Your task to perform on an android device: open app "Booking.com: Hotels and more" Image 0: 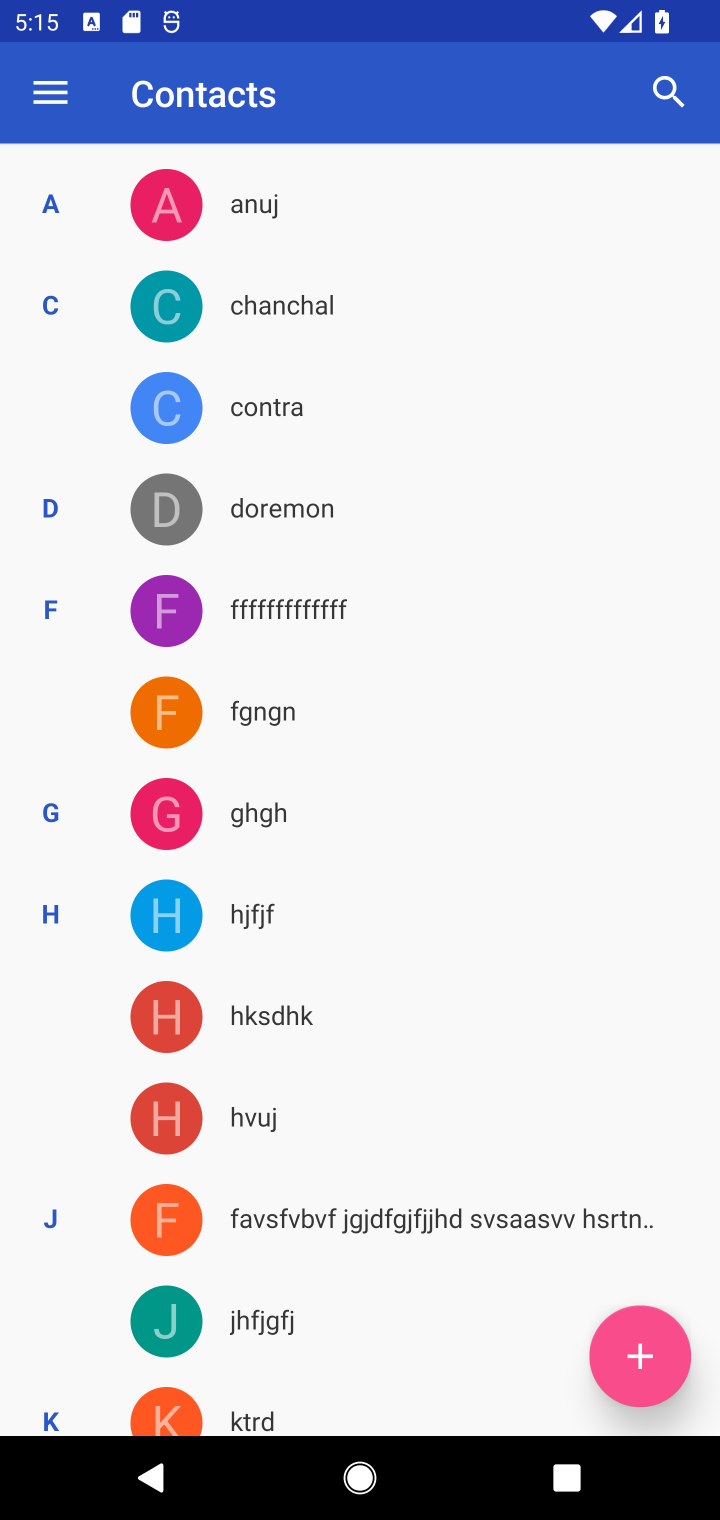
Step 0: press home button
Your task to perform on an android device: open app "Booking.com: Hotels and more" Image 1: 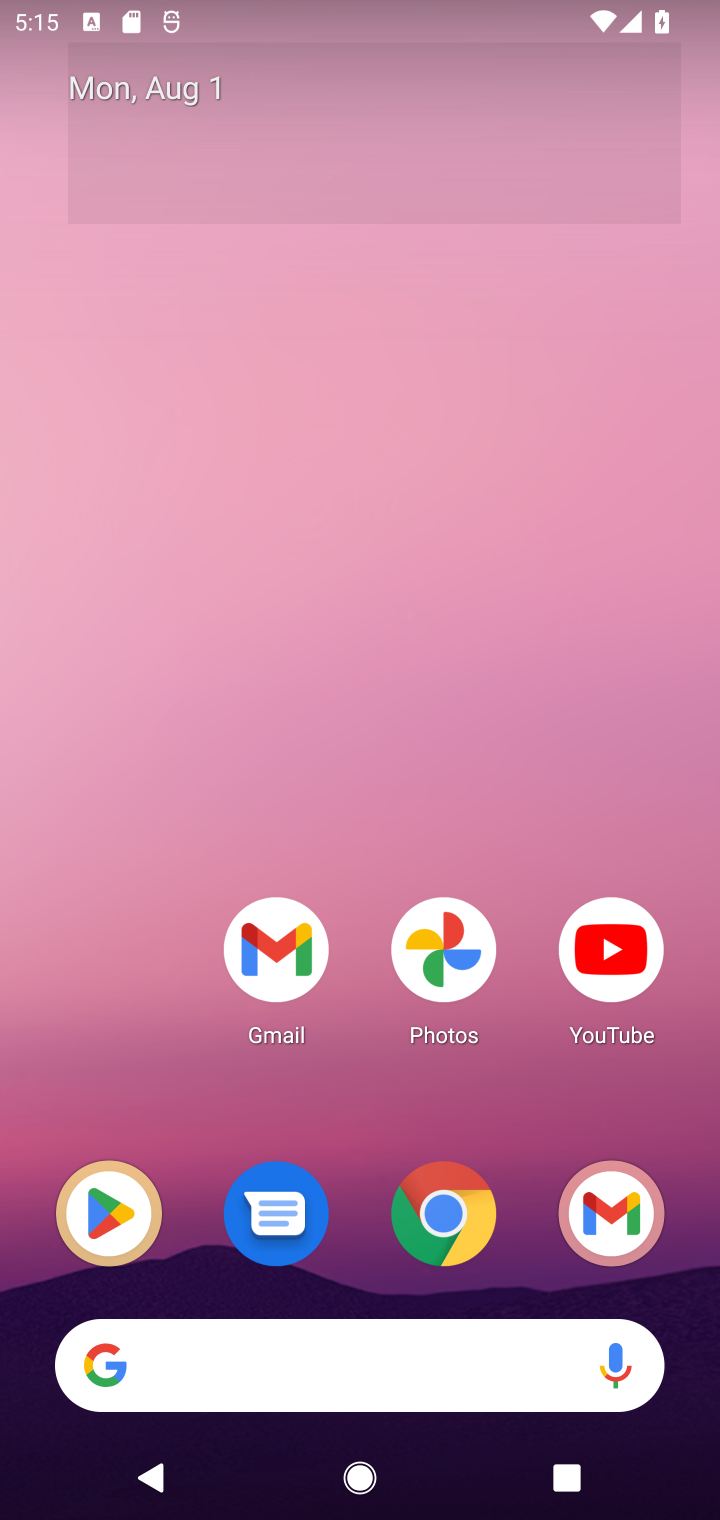
Step 1: drag from (503, 1117) to (515, 188)
Your task to perform on an android device: open app "Booking.com: Hotels and more" Image 2: 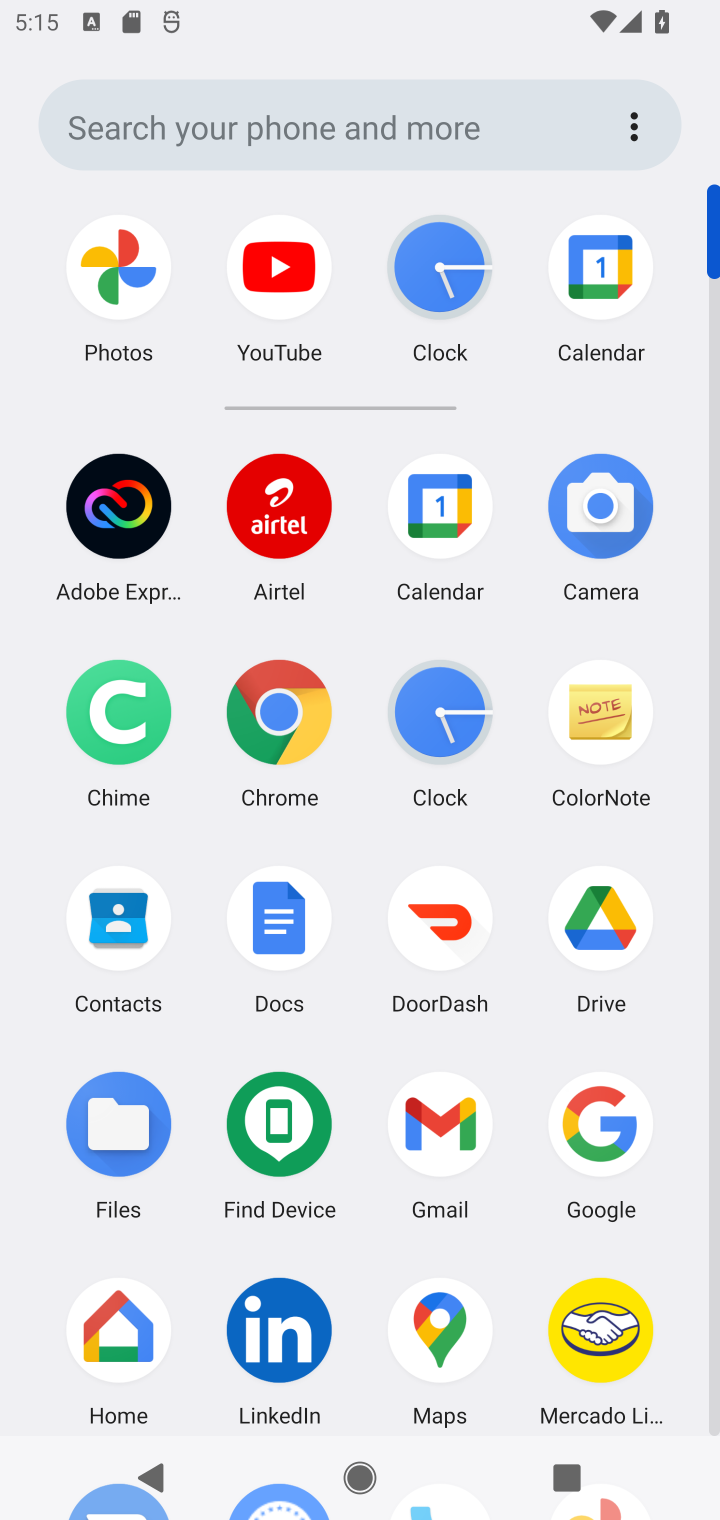
Step 2: drag from (520, 1230) to (453, 474)
Your task to perform on an android device: open app "Booking.com: Hotels and more" Image 3: 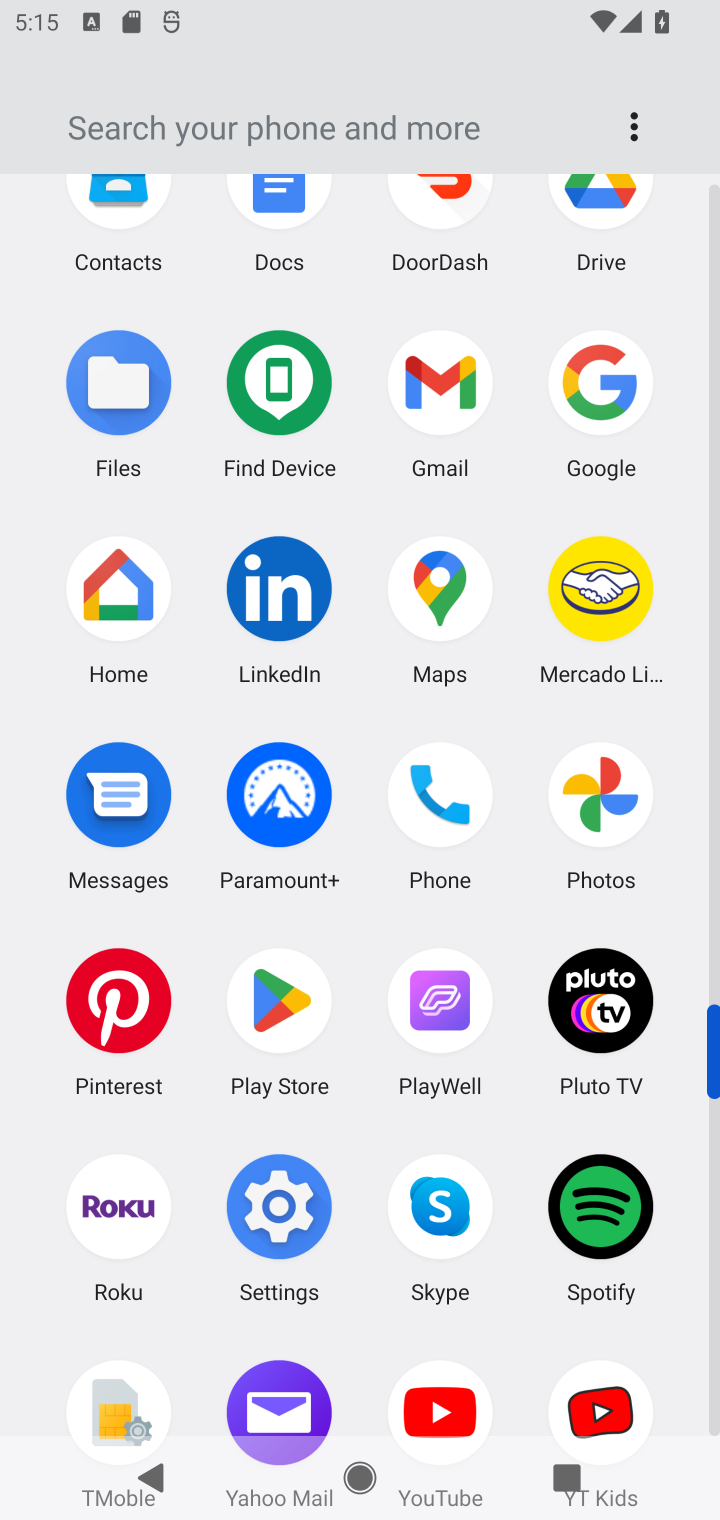
Step 3: click (299, 991)
Your task to perform on an android device: open app "Booking.com: Hotels and more" Image 4: 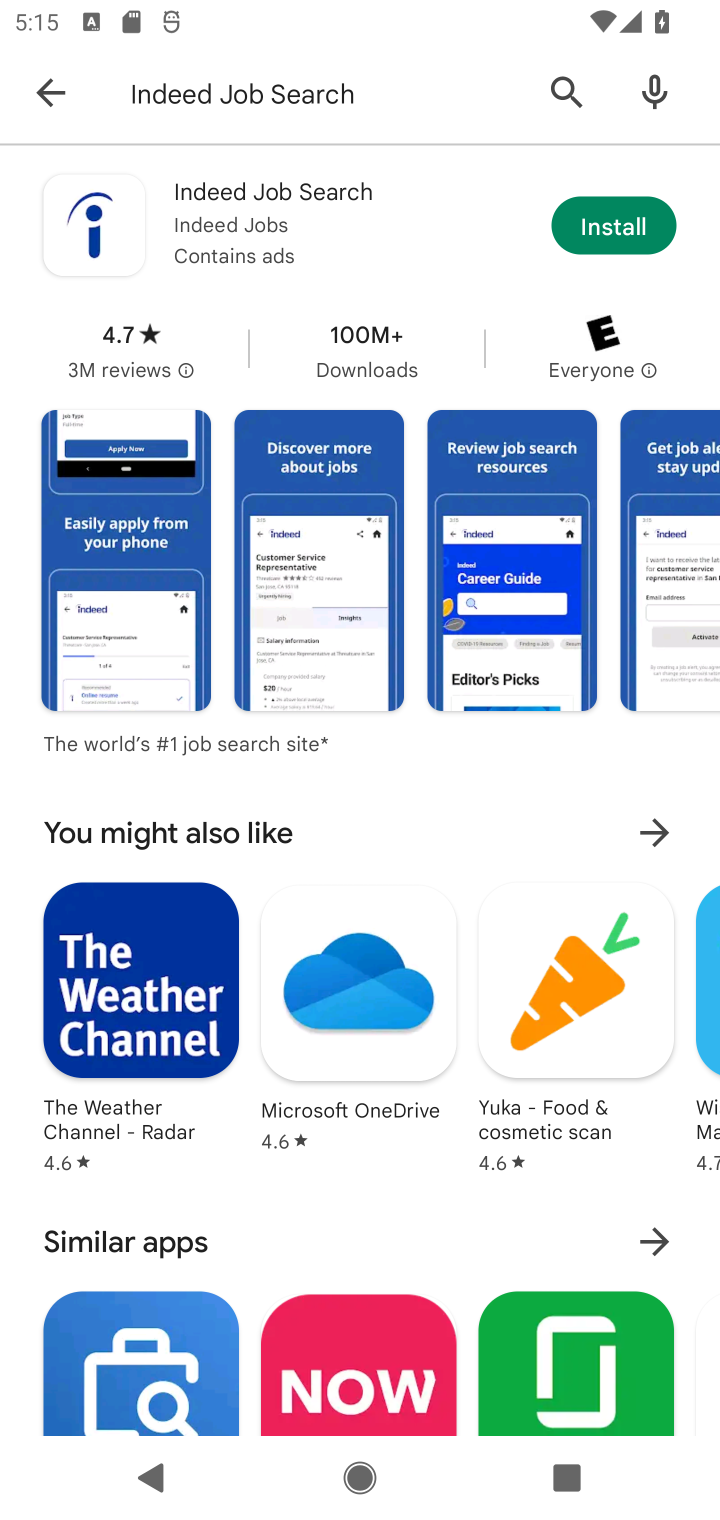
Step 4: click (429, 99)
Your task to perform on an android device: open app "Booking.com: Hotels and more" Image 5: 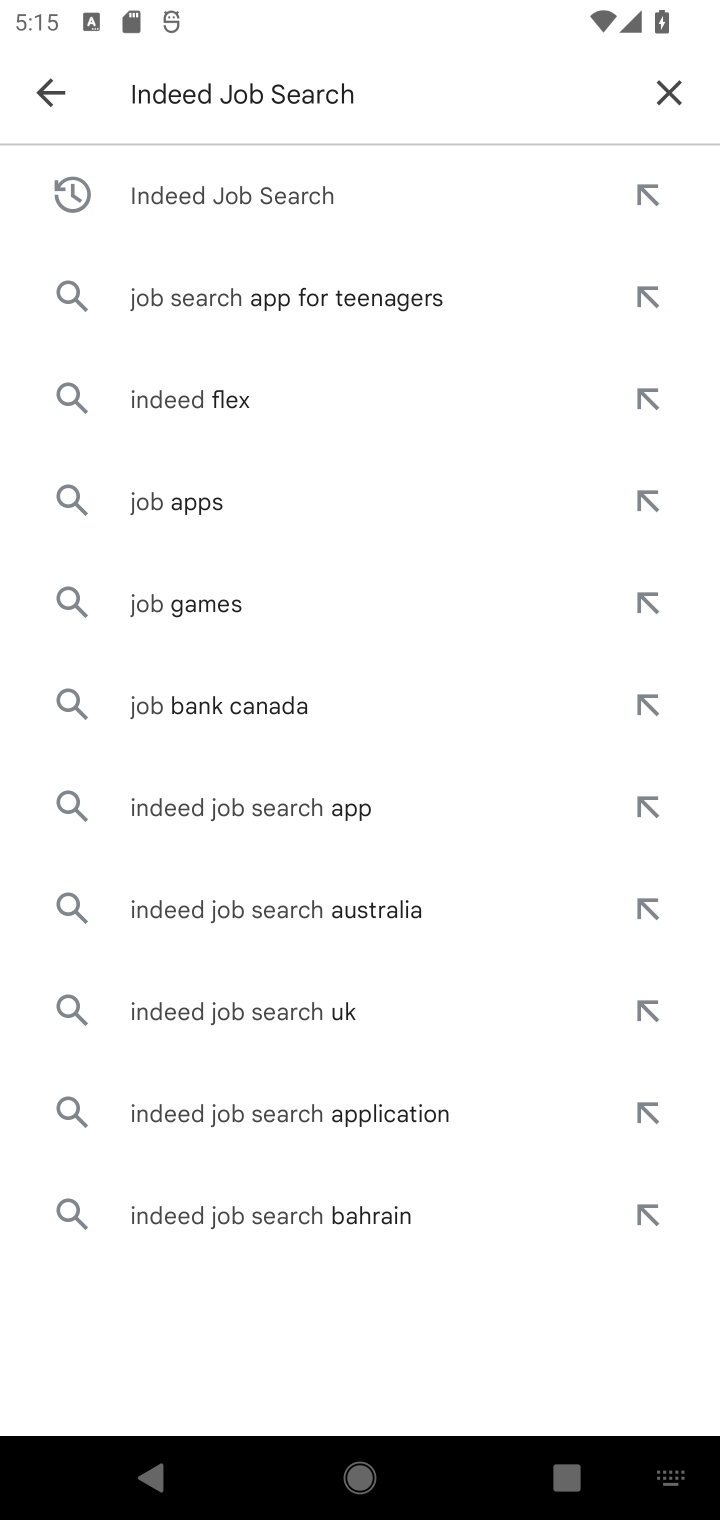
Step 5: click (658, 81)
Your task to perform on an android device: open app "Booking.com: Hotels and more" Image 6: 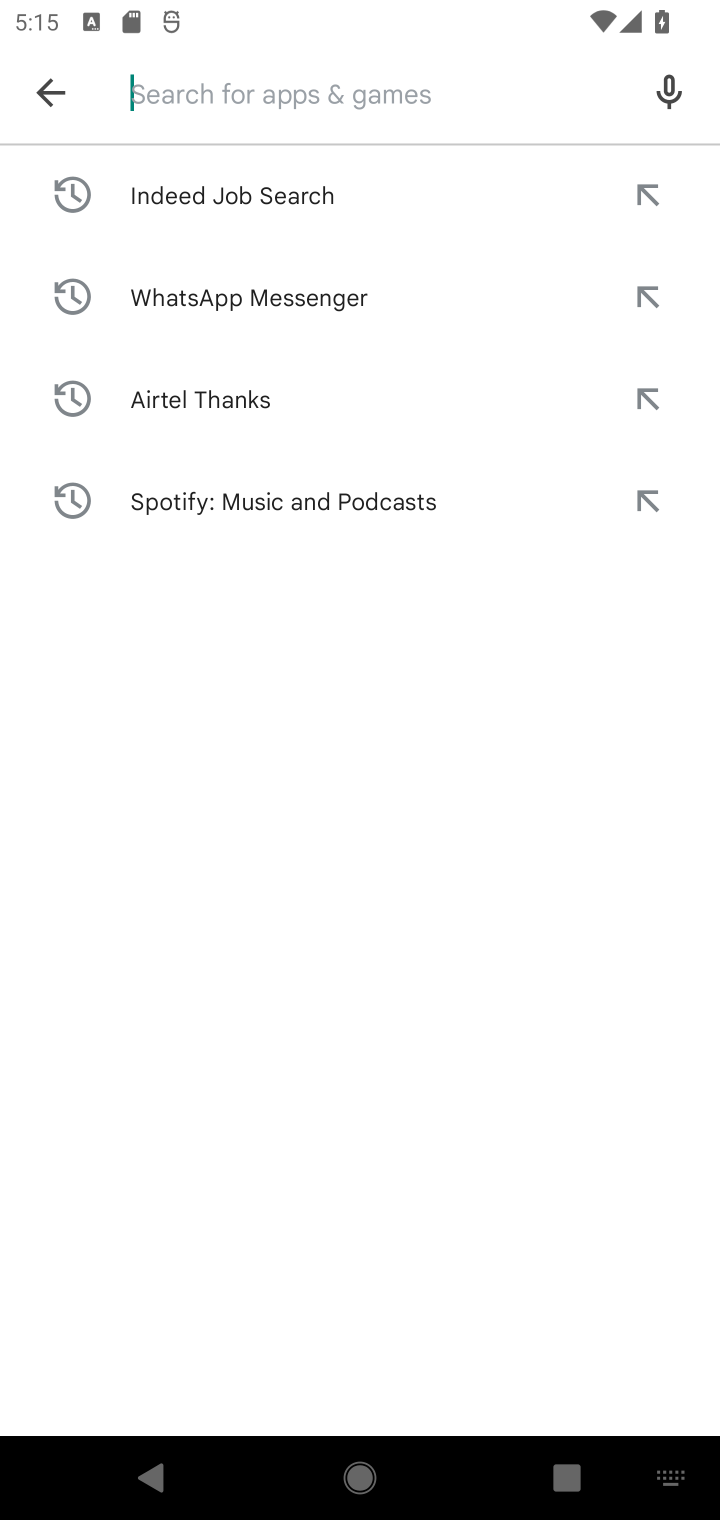
Step 6: type "Booking.com: Hotels and more"
Your task to perform on an android device: open app "Booking.com: Hotels and more" Image 7: 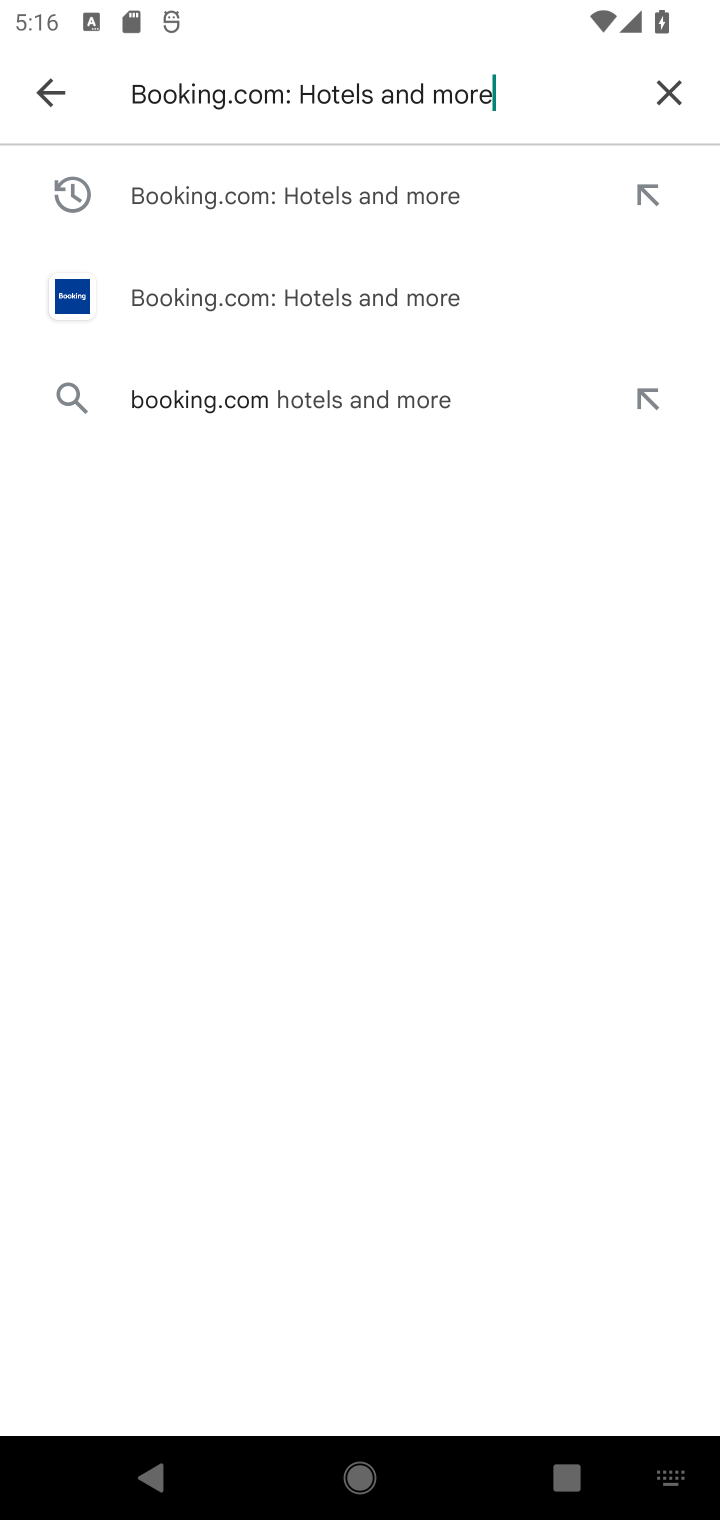
Step 7: press enter
Your task to perform on an android device: open app "Booking.com: Hotels and more" Image 8: 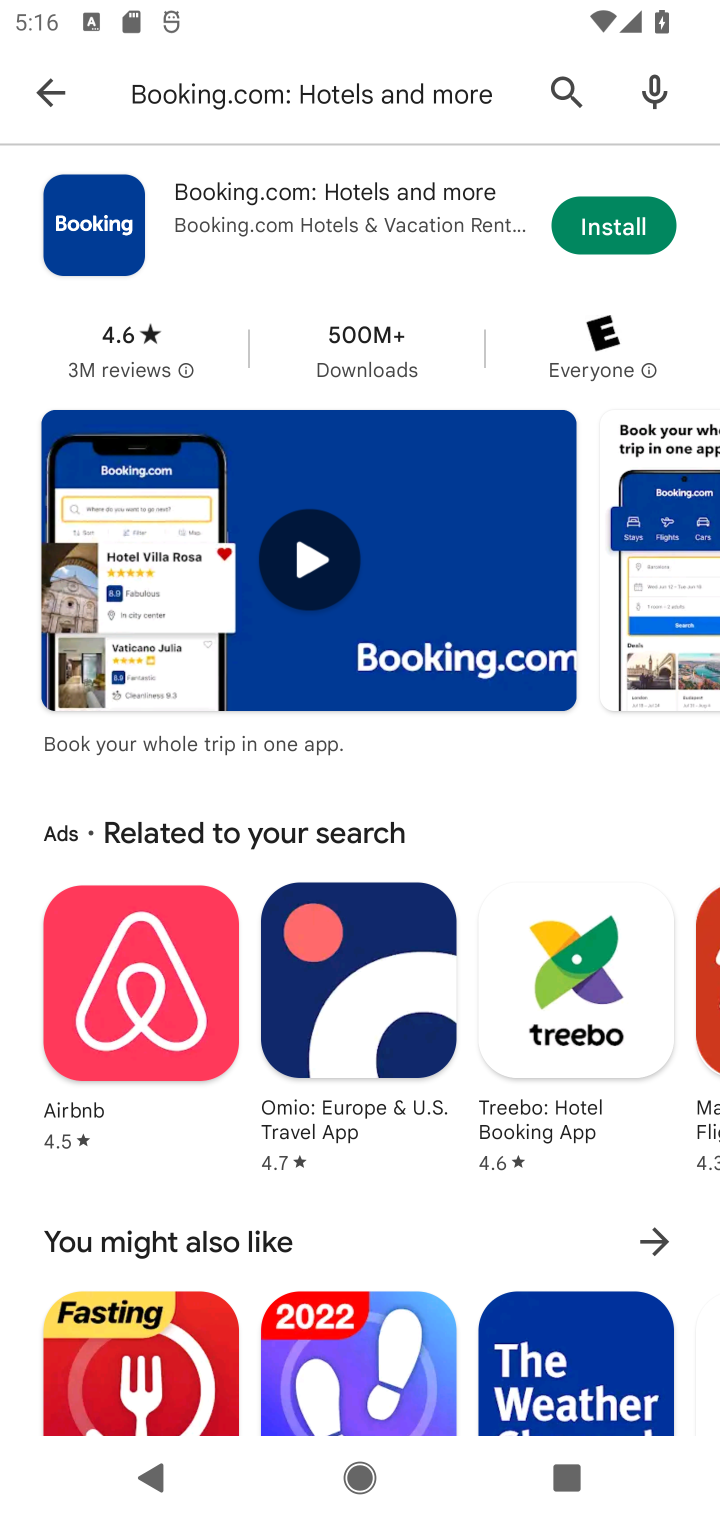
Step 8: click (298, 213)
Your task to perform on an android device: open app "Booking.com: Hotels and more" Image 9: 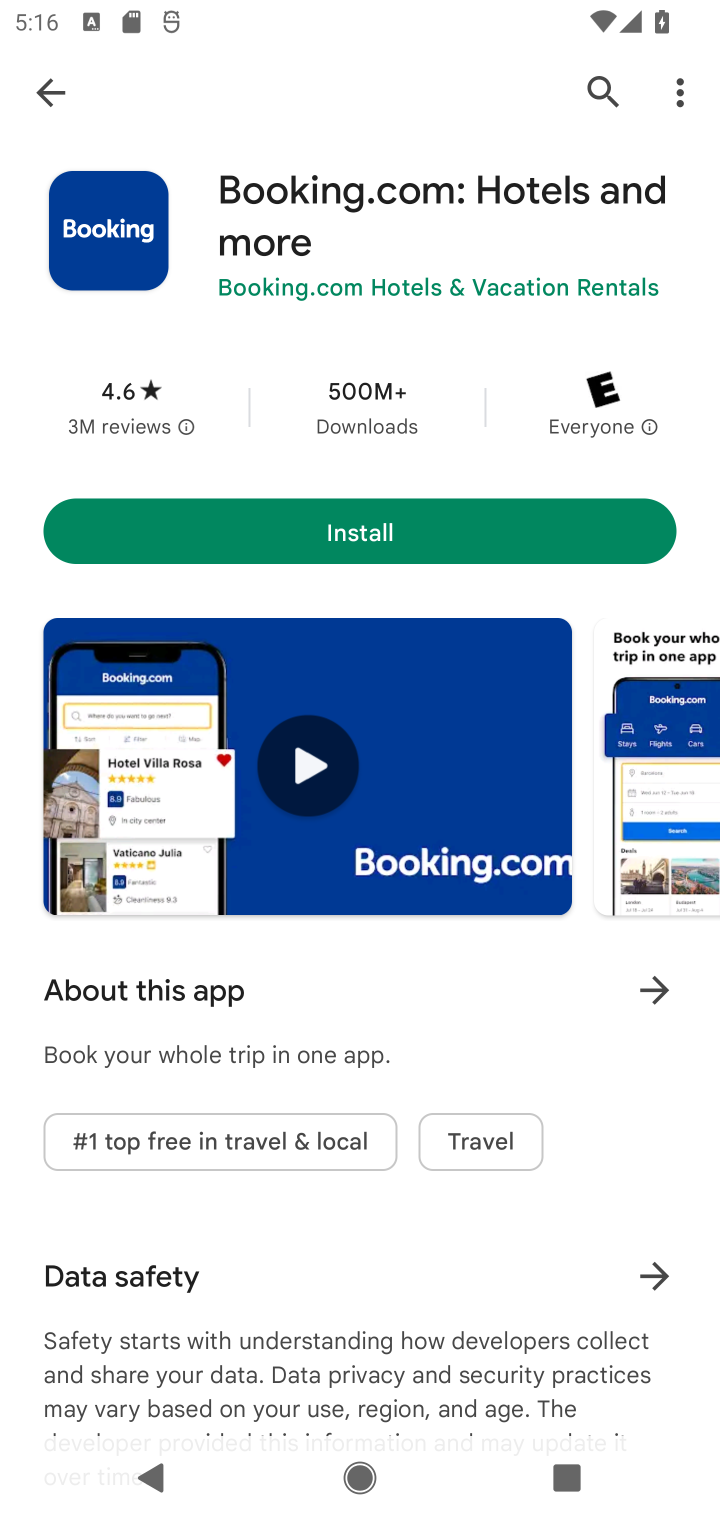
Step 9: task complete